Your task to perform on an android device: Open sound settings Image 0: 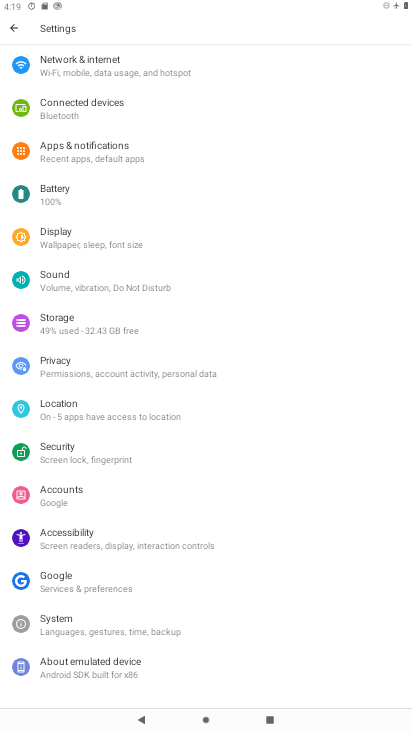
Step 0: press home button
Your task to perform on an android device: Open sound settings Image 1: 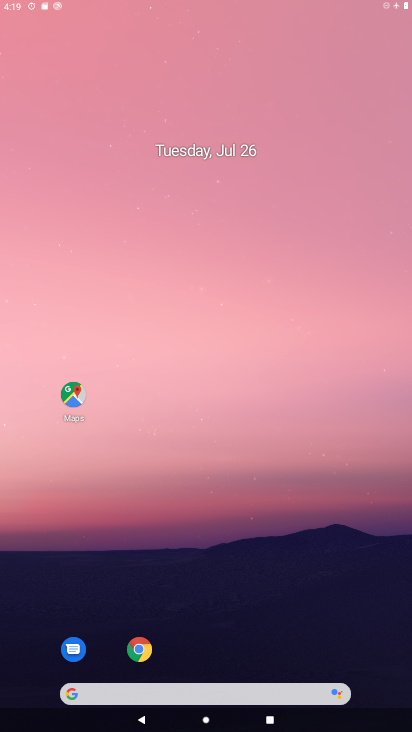
Step 1: drag from (380, 645) to (230, 31)
Your task to perform on an android device: Open sound settings Image 2: 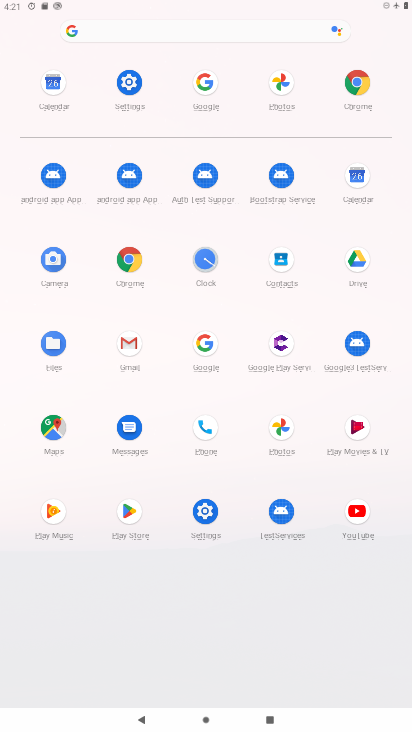
Step 2: click (213, 504)
Your task to perform on an android device: Open sound settings Image 3: 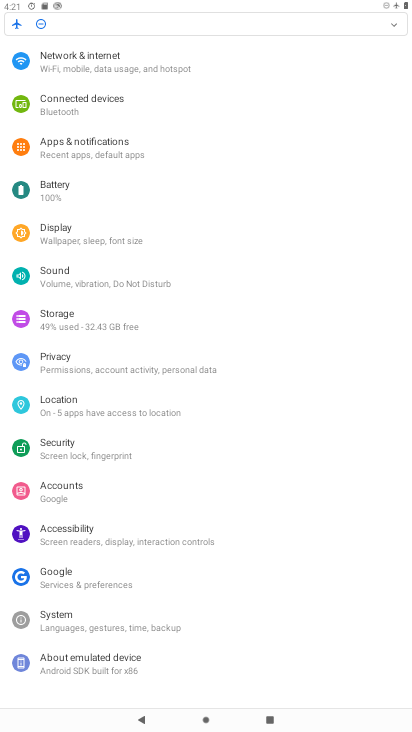
Step 3: click (67, 268)
Your task to perform on an android device: Open sound settings Image 4: 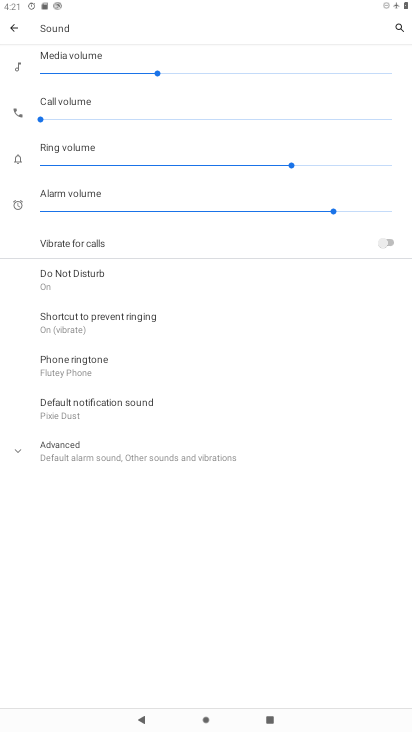
Step 4: task complete